Your task to perform on an android device: When is my next appointment? Image 0: 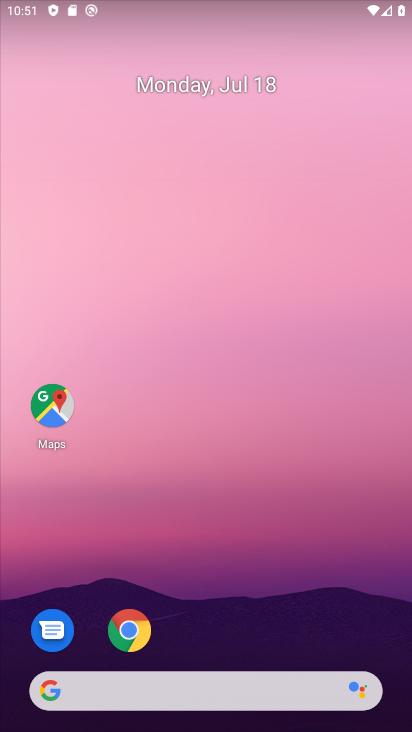
Step 0: drag from (213, 663) to (260, 174)
Your task to perform on an android device: When is my next appointment? Image 1: 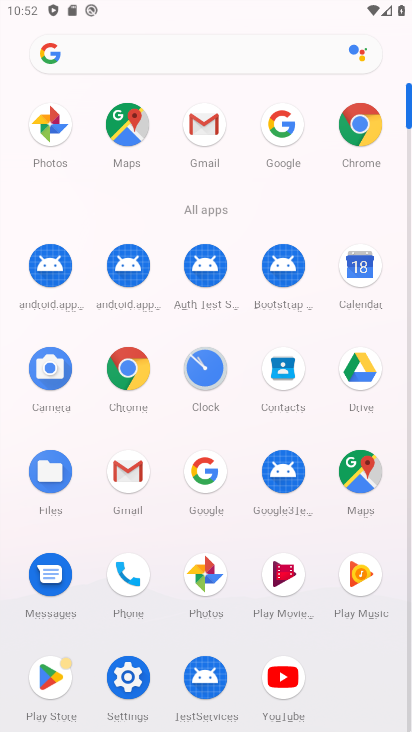
Step 1: click (358, 269)
Your task to perform on an android device: When is my next appointment? Image 2: 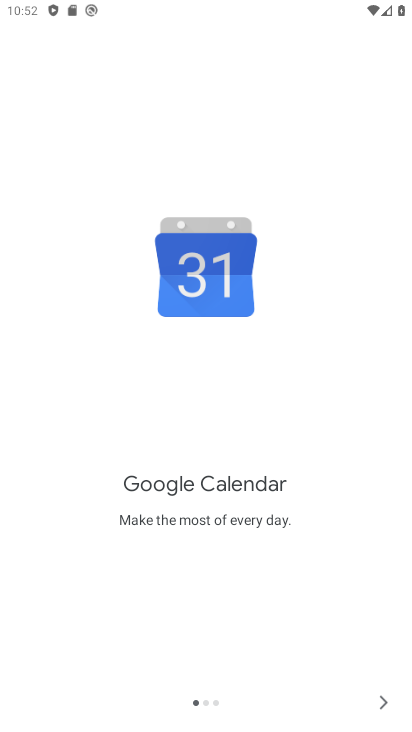
Step 2: click (377, 704)
Your task to perform on an android device: When is my next appointment? Image 3: 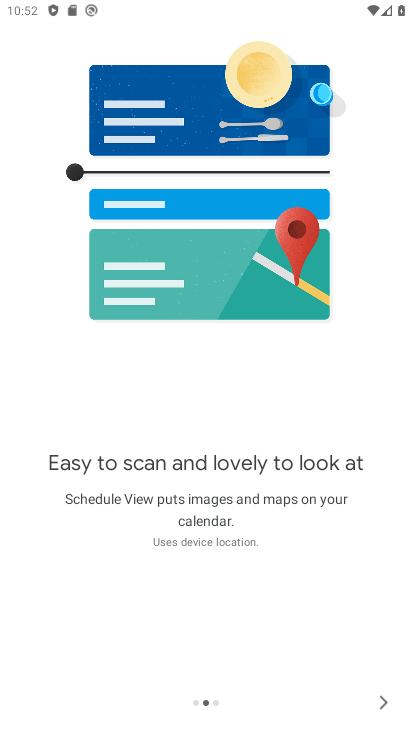
Step 3: click (377, 704)
Your task to perform on an android device: When is my next appointment? Image 4: 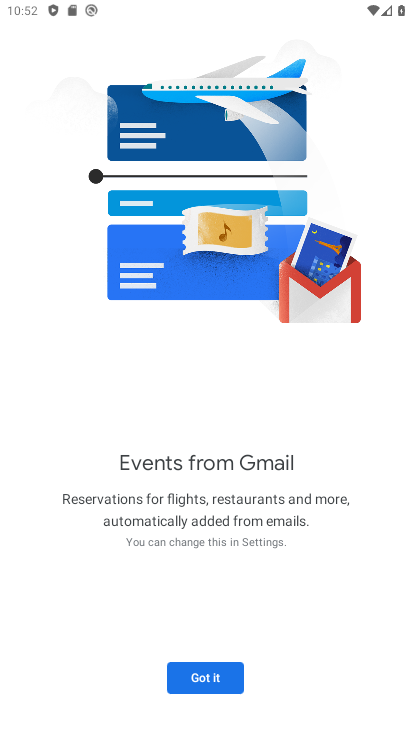
Step 4: click (223, 674)
Your task to perform on an android device: When is my next appointment? Image 5: 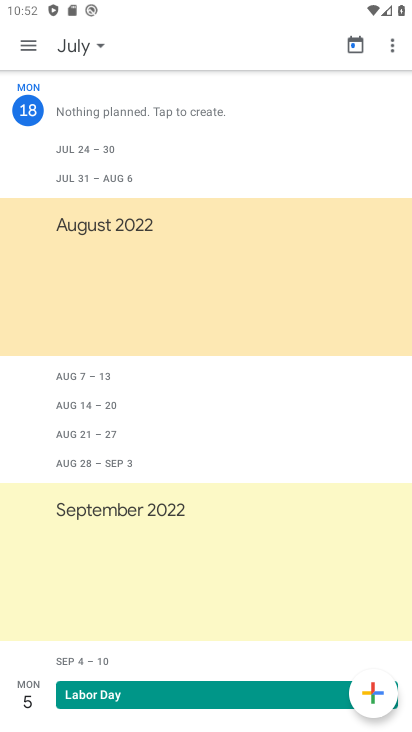
Step 5: click (88, 42)
Your task to perform on an android device: When is my next appointment? Image 6: 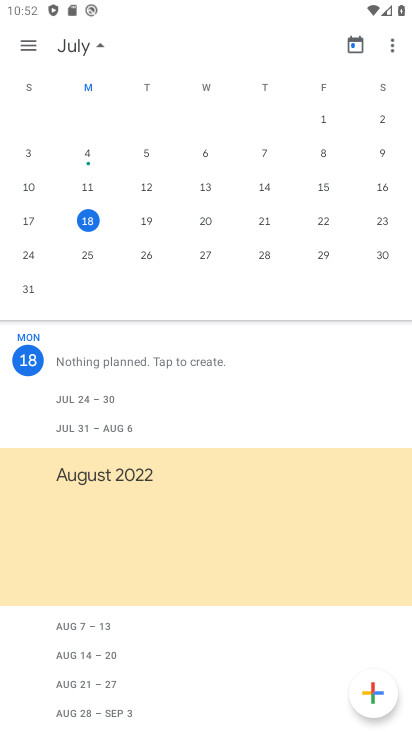
Step 6: click (147, 215)
Your task to perform on an android device: When is my next appointment? Image 7: 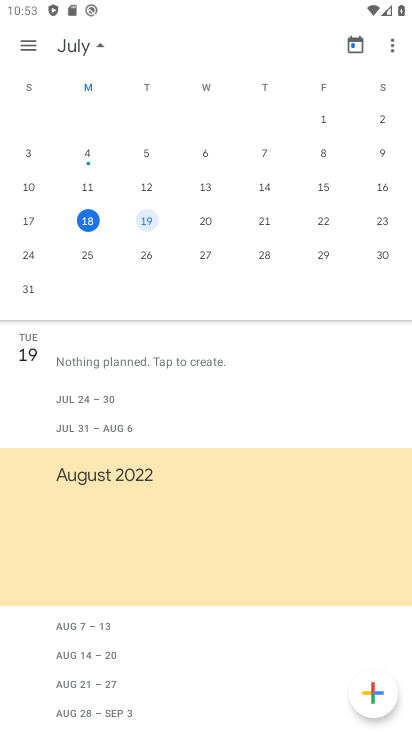
Step 7: click (265, 219)
Your task to perform on an android device: When is my next appointment? Image 8: 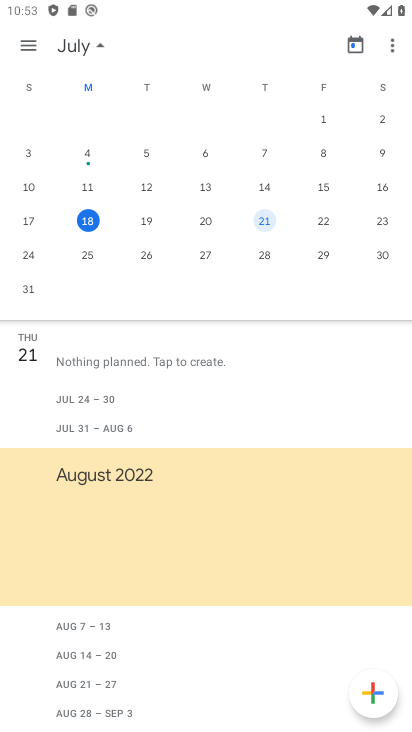
Step 8: click (379, 225)
Your task to perform on an android device: When is my next appointment? Image 9: 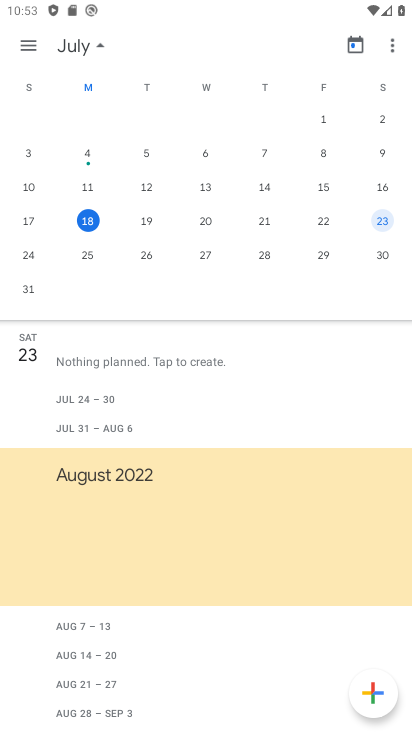
Step 9: task complete